Your task to perform on an android device: toggle translation in the chrome app Image 0: 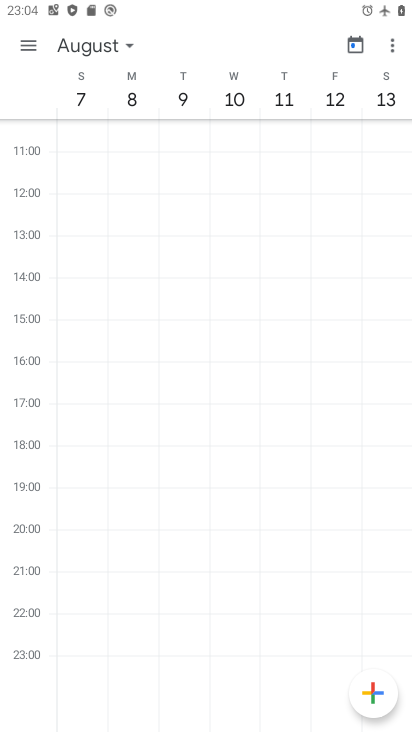
Step 0: press home button
Your task to perform on an android device: toggle translation in the chrome app Image 1: 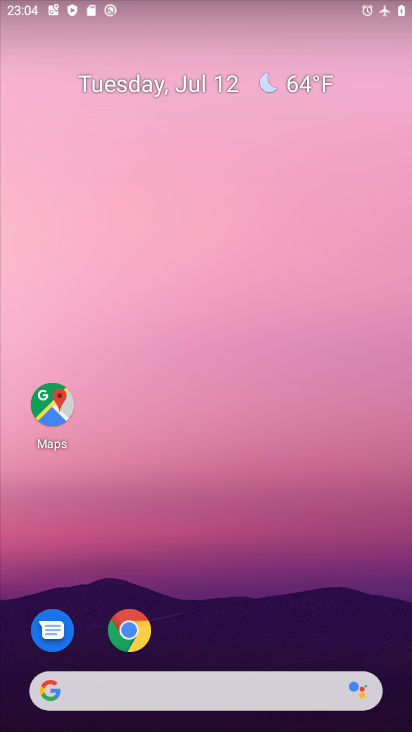
Step 1: drag from (201, 648) to (193, 281)
Your task to perform on an android device: toggle translation in the chrome app Image 2: 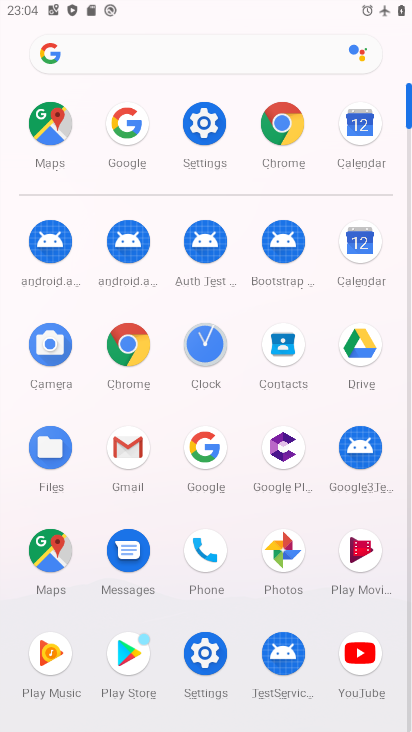
Step 2: click (134, 346)
Your task to perform on an android device: toggle translation in the chrome app Image 3: 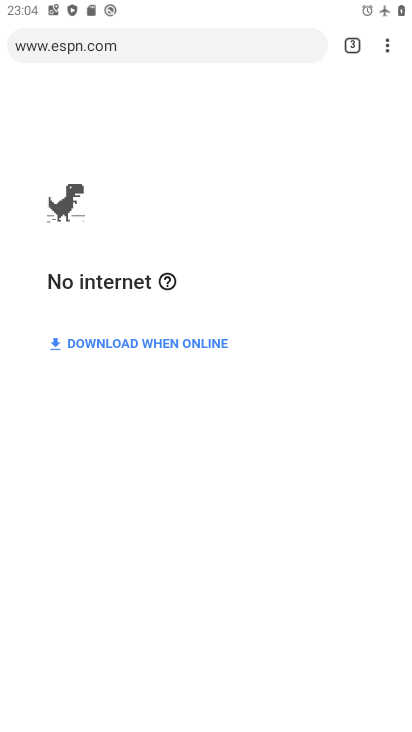
Step 3: click (388, 42)
Your task to perform on an android device: toggle translation in the chrome app Image 4: 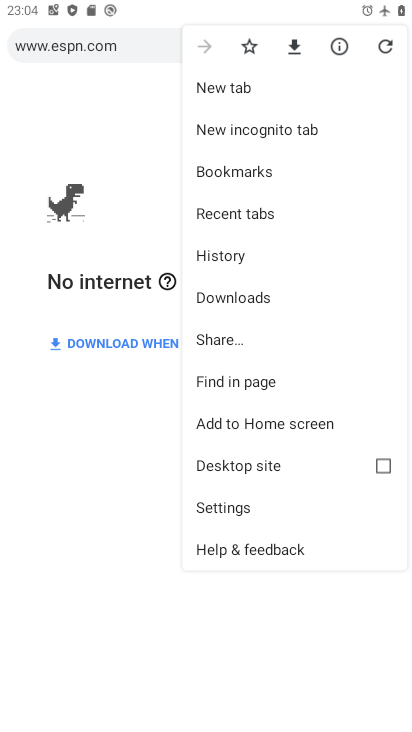
Step 4: click (236, 501)
Your task to perform on an android device: toggle translation in the chrome app Image 5: 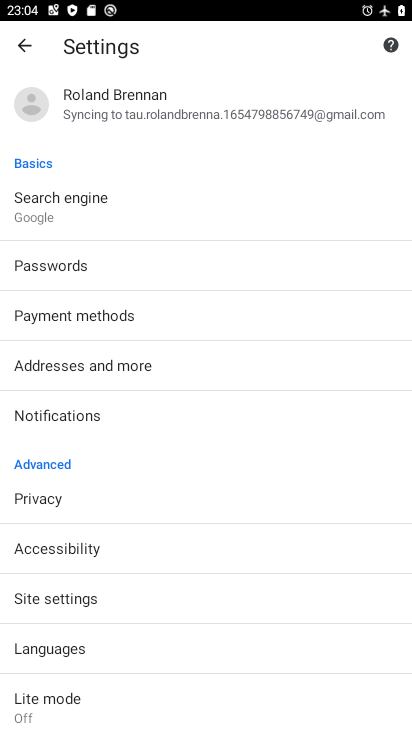
Step 5: click (91, 643)
Your task to perform on an android device: toggle translation in the chrome app Image 6: 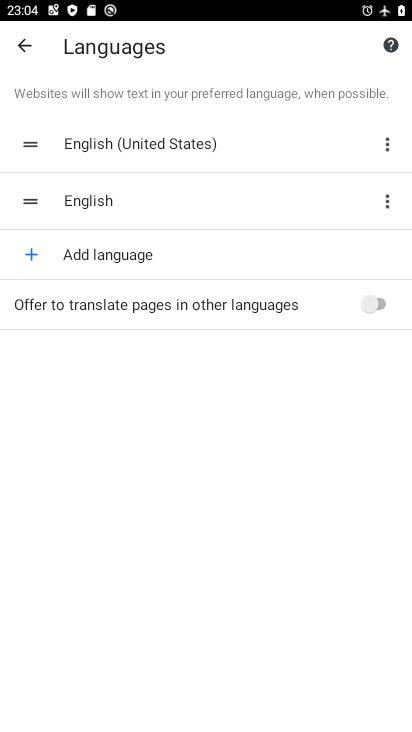
Step 6: click (385, 300)
Your task to perform on an android device: toggle translation in the chrome app Image 7: 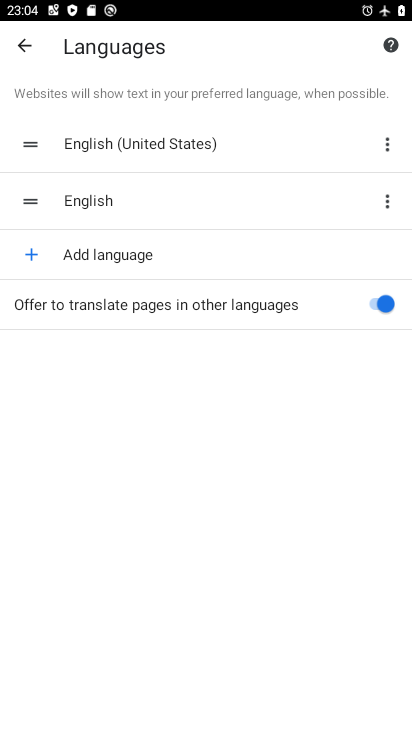
Step 7: task complete